Your task to perform on an android device: Go to Wikipedia Image 0: 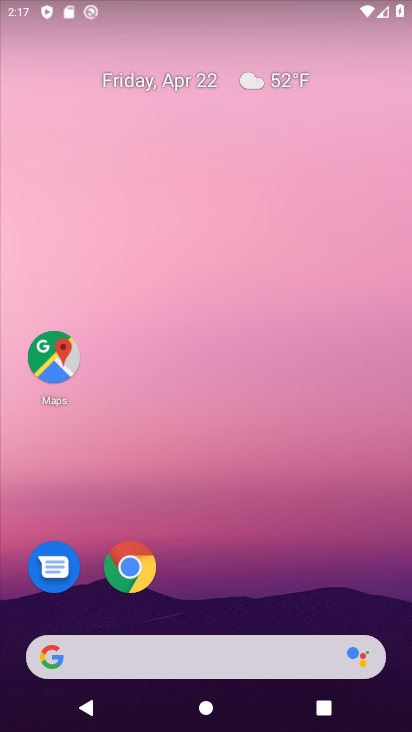
Step 0: click (147, 568)
Your task to perform on an android device: Go to Wikipedia Image 1: 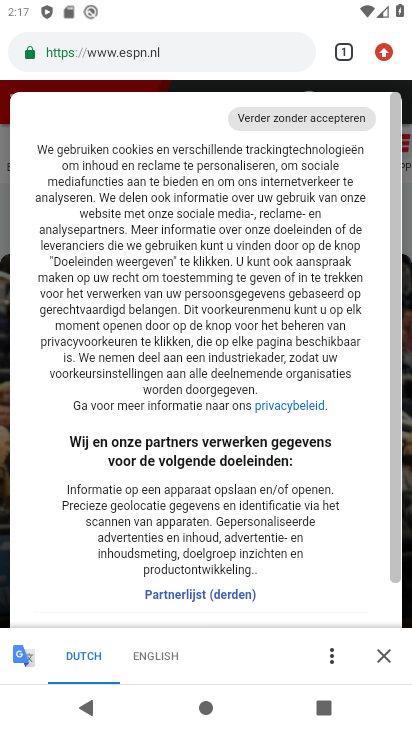
Step 1: click (336, 47)
Your task to perform on an android device: Go to Wikipedia Image 2: 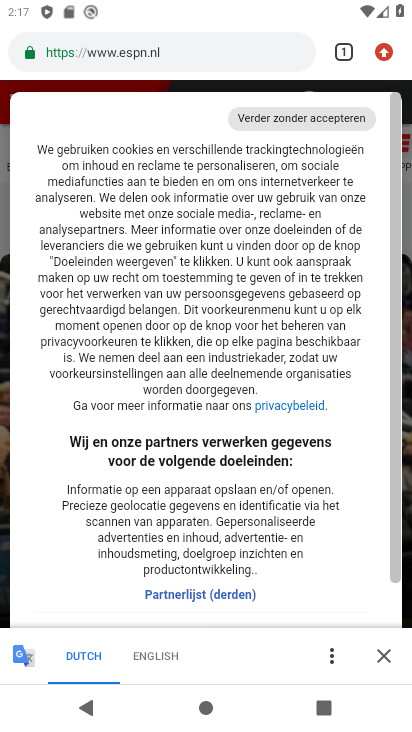
Step 2: click (354, 51)
Your task to perform on an android device: Go to Wikipedia Image 3: 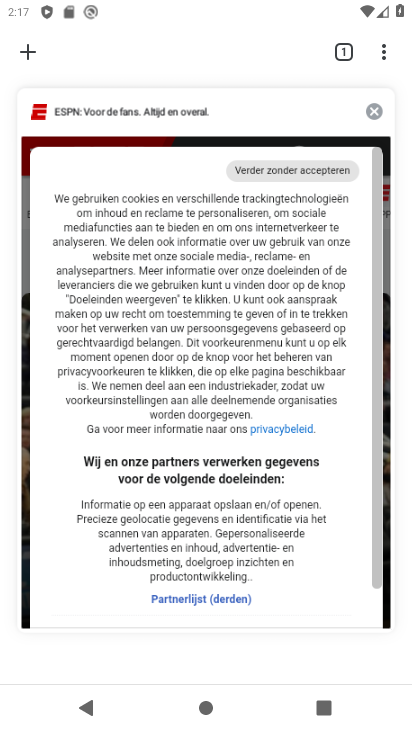
Step 3: click (25, 46)
Your task to perform on an android device: Go to Wikipedia Image 4: 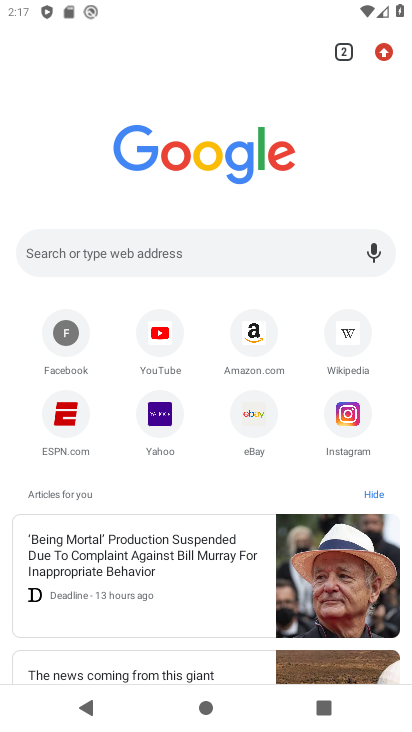
Step 4: click (346, 337)
Your task to perform on an android device: Go to Wikipedia Image 5: 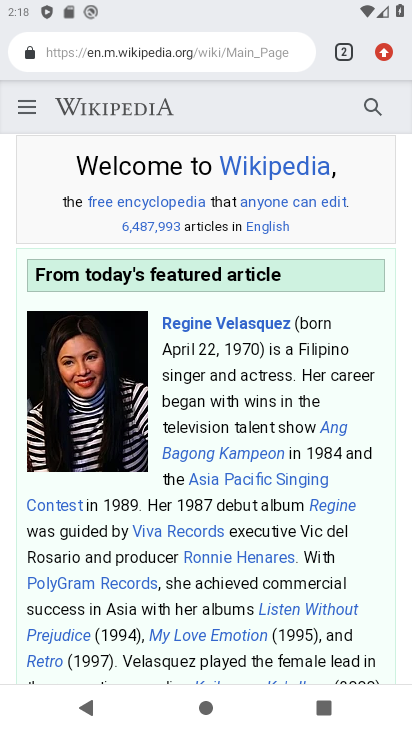
Step 5: task complete